Your task to perform on an android device: change the clock style Image 0: 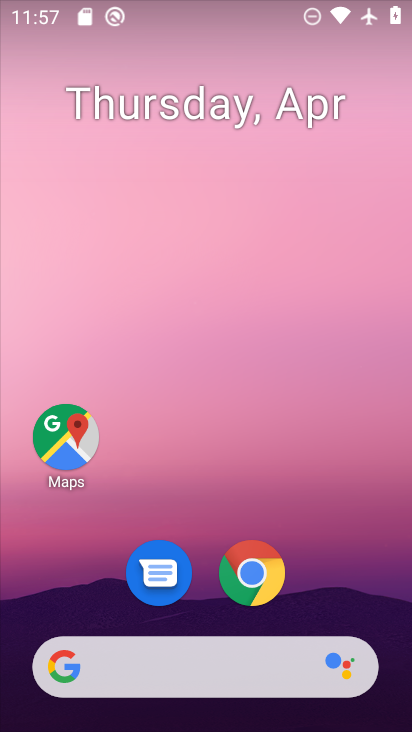
Step 0: drag from (306, 606) to (250, 2)
Your task to perform on an android device: change the clock style Image 1: 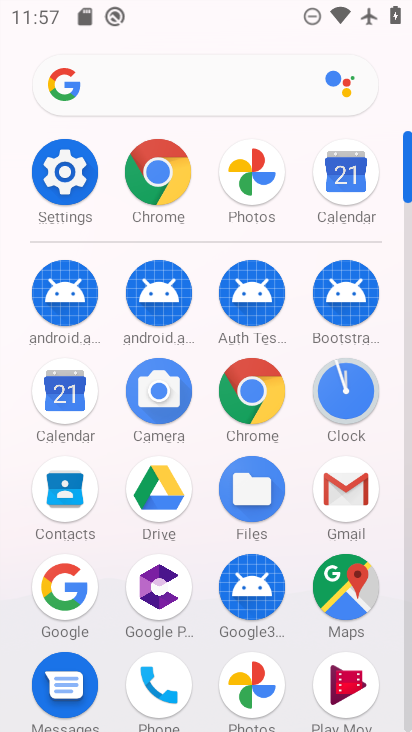
Step 1: click (335, 367)
Your task to perform on an android device: change the clock style Image 2: 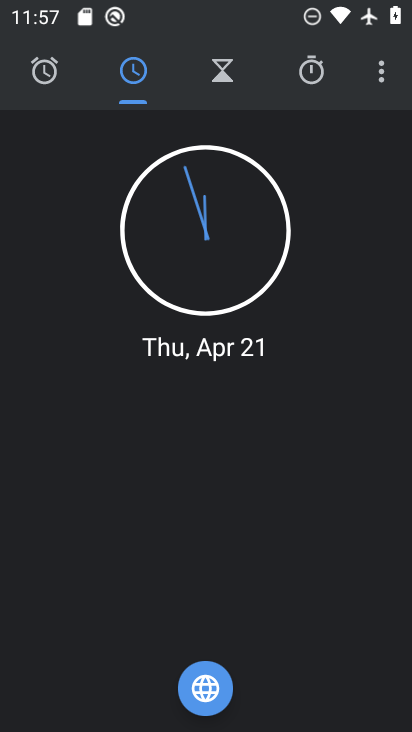
Step 2: click (385, 81)
Your task to perform on an android device: change the clock style Image 3: 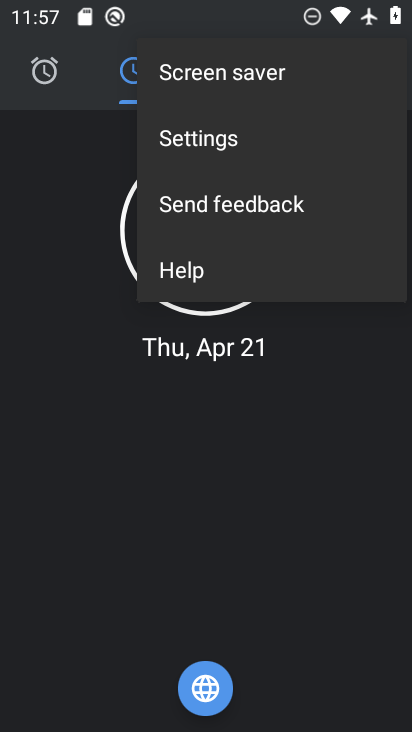
Step 3: click (192, 147)
Your task to perform on an android device: change the clock style Image 4: 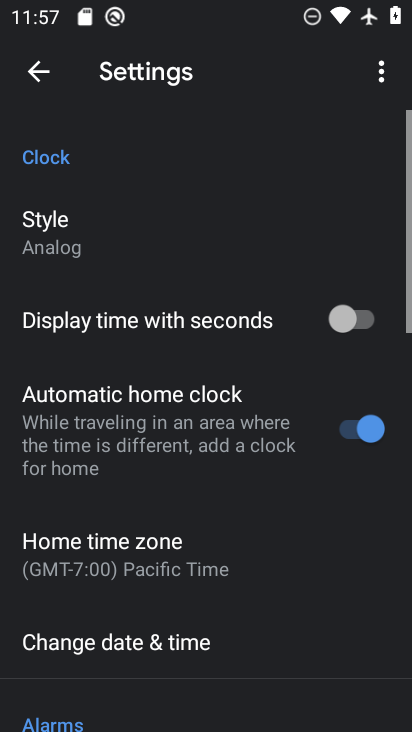
Step 4: click (47, 223)
Your task to perform on an android device: change the clock style Image 5: 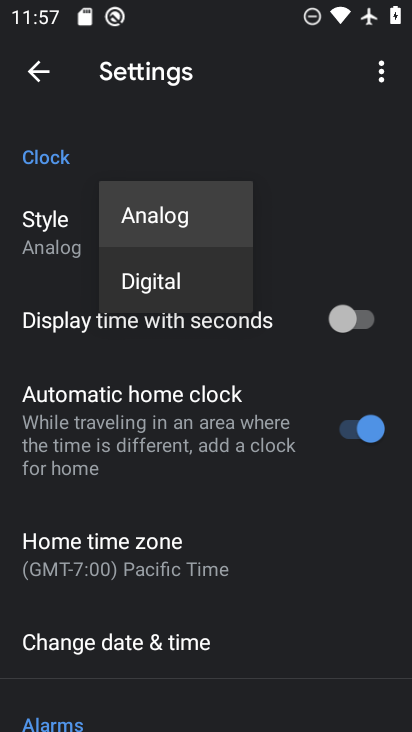
Step 5: click (211, 285)
Your task to perform on an android device: change the clock style Image 6: 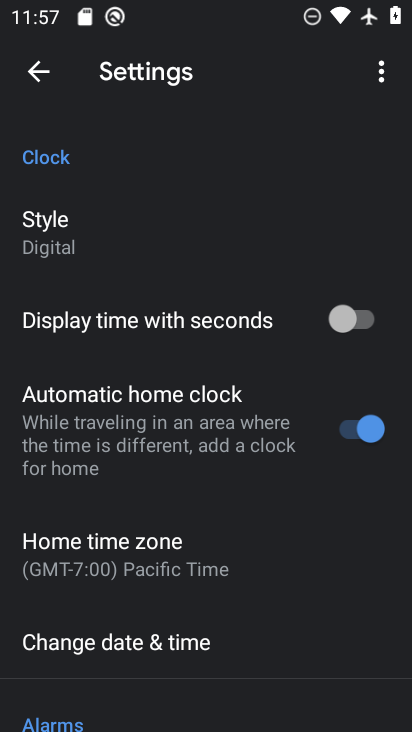
Step 6: task complete